Your task to perform on an android device: change the clock display to show seconds Image 0: 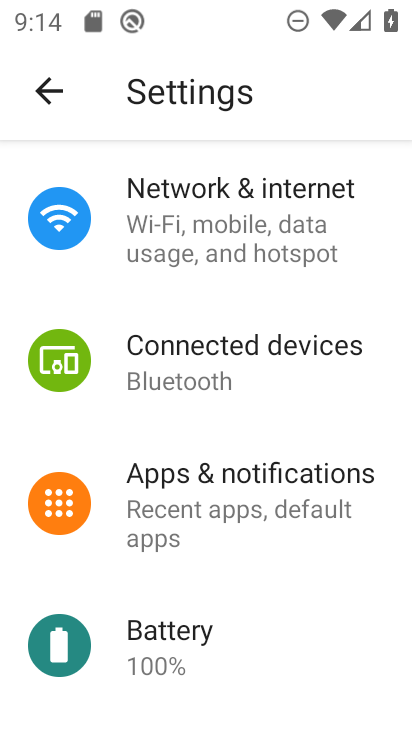
Step 0: press home button
Your task to perform on an android device: change the clock display to show seconds Image 1: 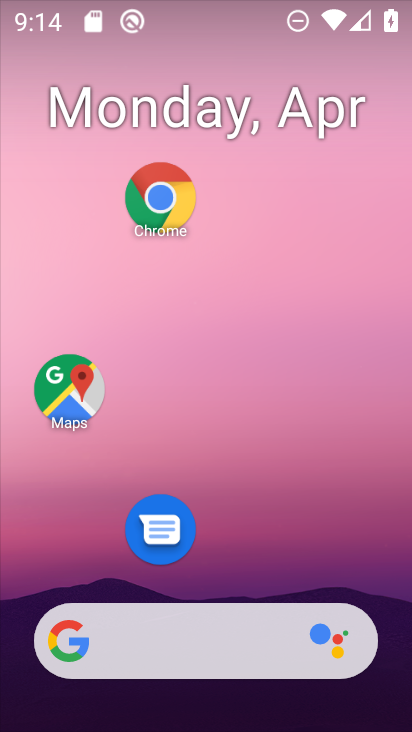
Step 1: drag from (262, 433) to (300, 69)
Your task to perform on an android device: change the clock display to show seconds Image 2: 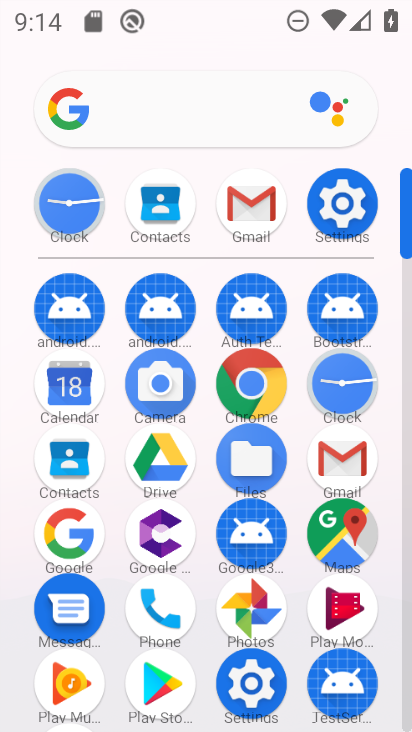
Step 2: click (350, 389)
Your task to perform on an android device: change the clock display to show seconds Image 3: 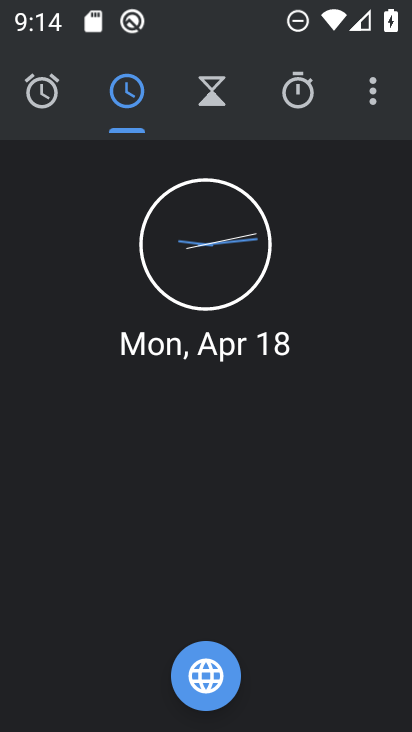
Step 3: click (375, 83)
Your task to perform on an android device: change the clock display to show seconds Image 4: 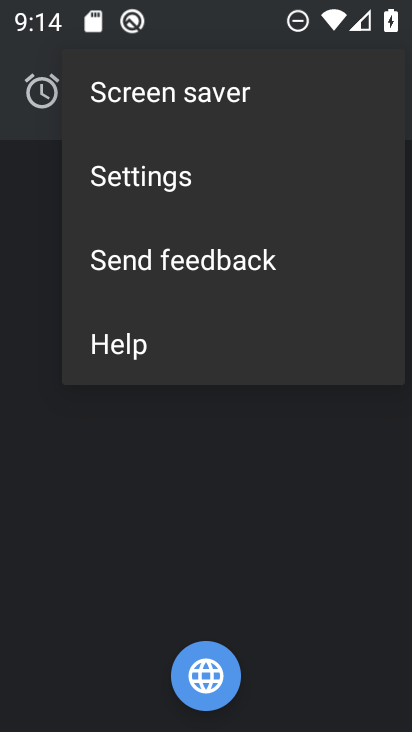
Step 4: click (166, 175)
Your task to perform on an android device: change the clock display to show seconds Image 5: 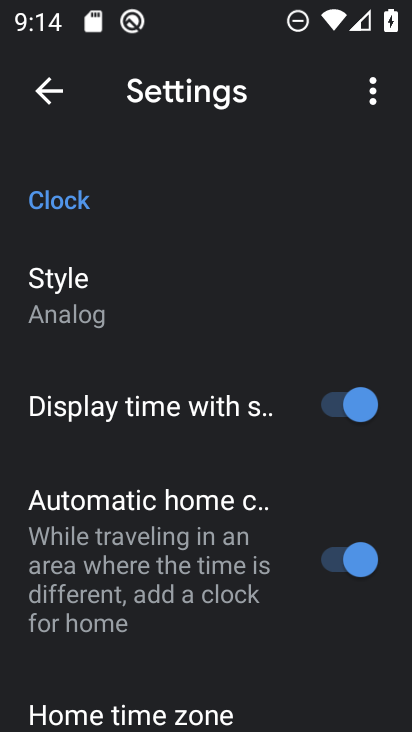
Step 5: click (87, 302)
Your task to perform on an android device: change the clock display to show seconds Image 6: 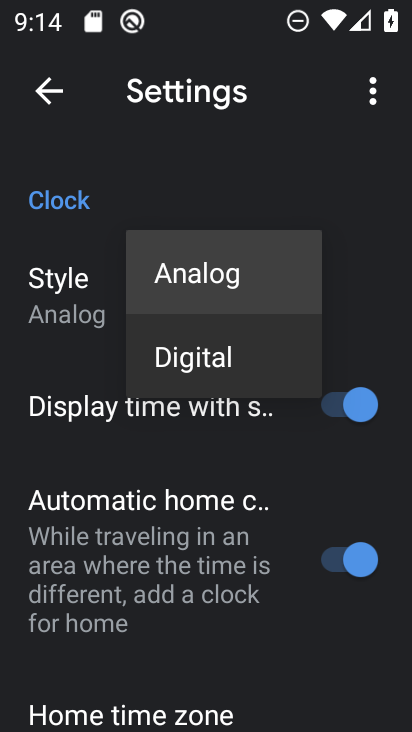
Step 6: click (200, 358)
Your task to perform on an android device: change the clock display to show seconds Image 7: 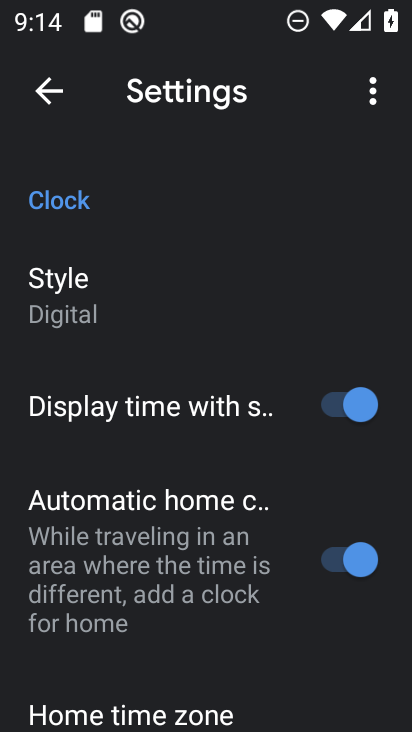
Step 7: task complete